Your task to perform on an android device: Search for Italian restaurants on Maps Image 0: 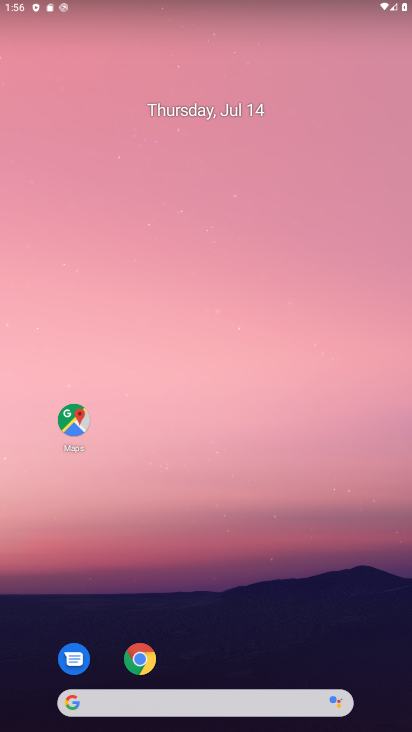
Step 0: click (71, 423)
Your task to perform on an android device: Search for Italian restaurants on Maps Image 1: 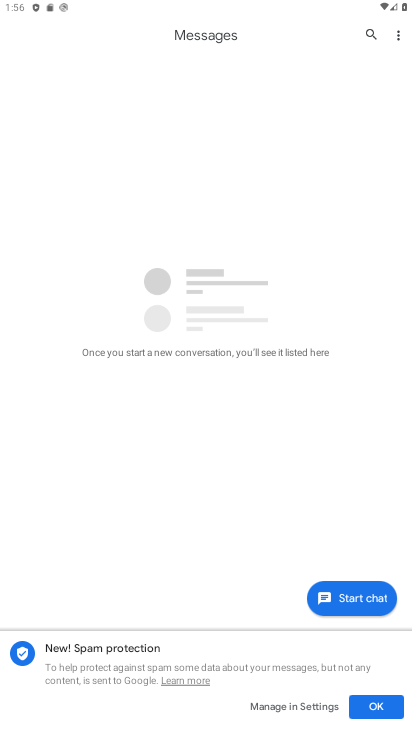
Step 1: press home button
Your task to perform on an android device: Search for Italian restaurants on Maps Image 2: 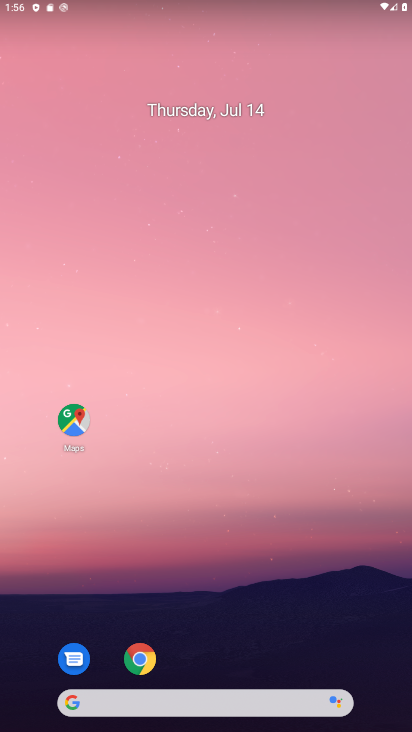
Step 2: click (72, 415)
Your task to perform on an android device: Search for Italian restaurants on Maps Image 3: 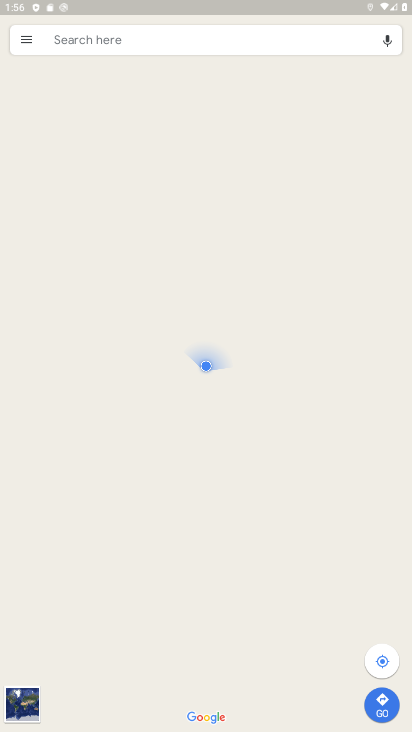
Step 3: click (145, 46)
Your task to perform on an android device: Search for Italian restaurants on Maps Image 4: 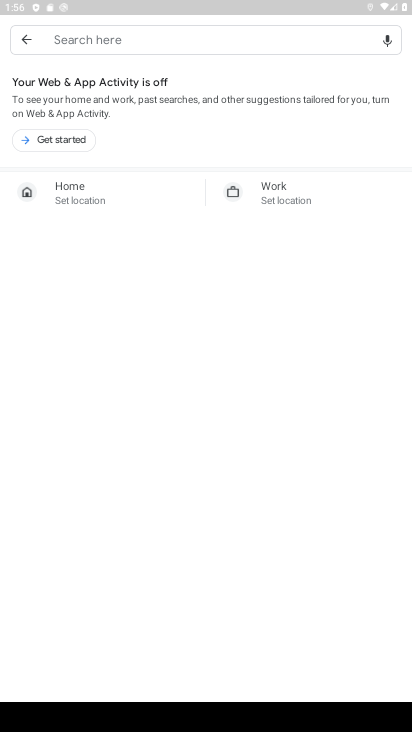
Step 4: type "Italian restaurants"
Your task to perform on an android device: Search for Italian restaurants on Maps Image 5: 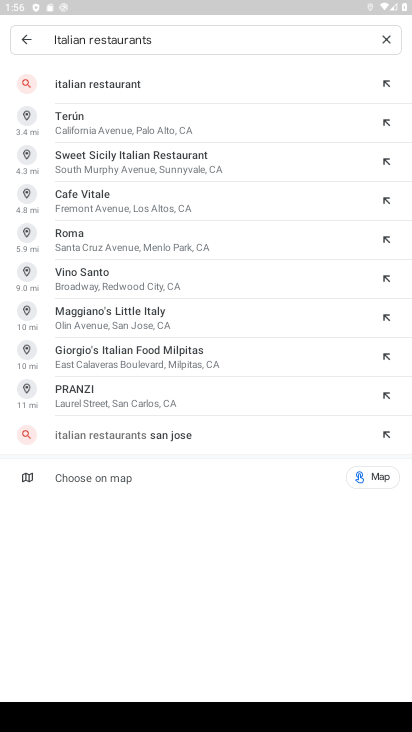
Step 5: click (141, 79)
Your task to perform on an android device: Search for Italian restaurants on Maps Image 6: 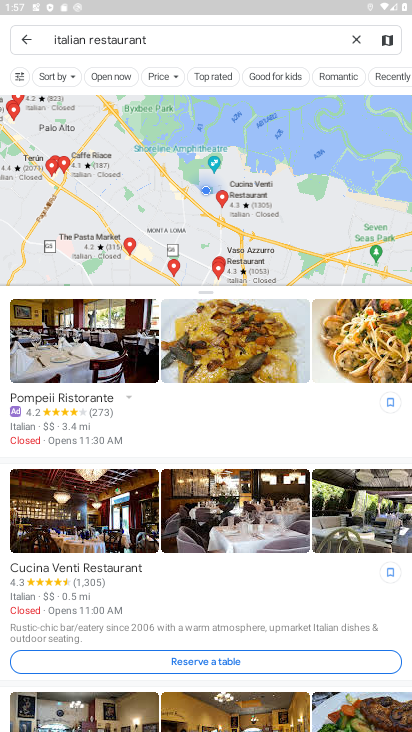
Step 6: task complete